Your task to perform on an android device: Search for sushi restaurants on Maps Image 0: 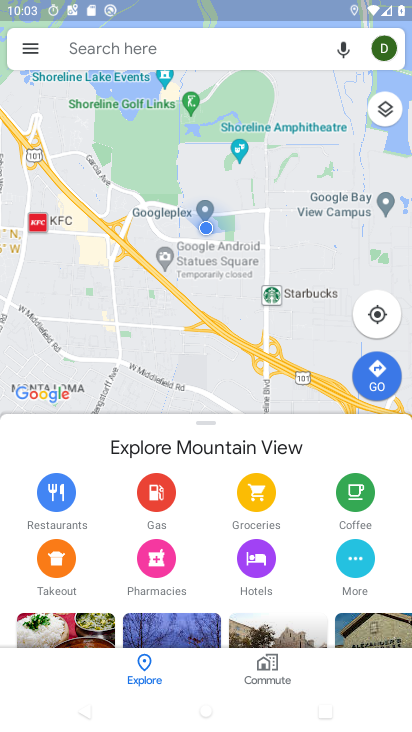
Step 0: press home button
Your task to perform on an android device: Search for sushi restaurants on Maps Image 1: 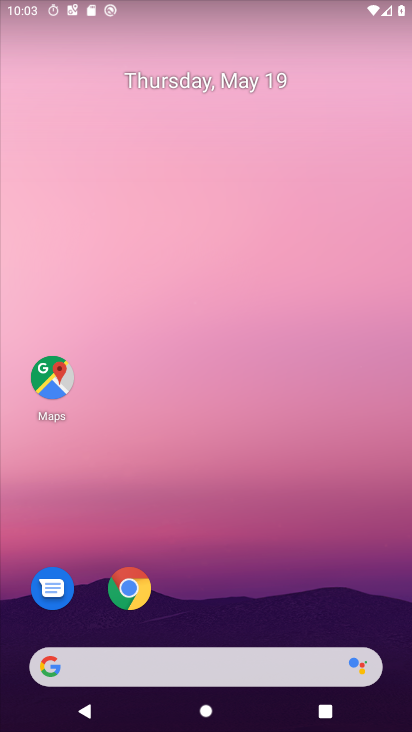
Step 1: drag from (165, 670) to (343, 74)
Your task to perform on an android device: Search for sushi restaurants on Maps Image 2: 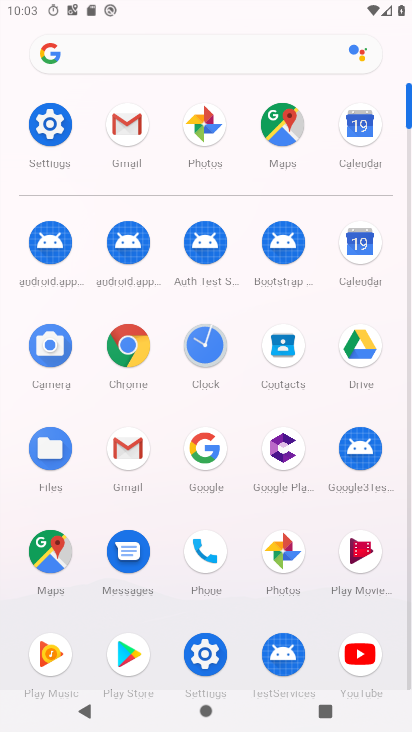
Step 2: click (282, 130)
Your task to perform on an android device: Search for sushi restaurants on Maps Image 3: 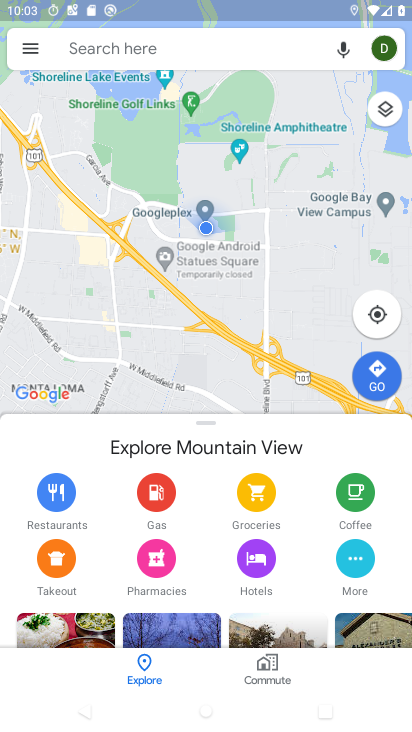
Step 3: click (202, 51)
Your task to perform on an android device: Search for sushi restaurants on Maps Image 4: 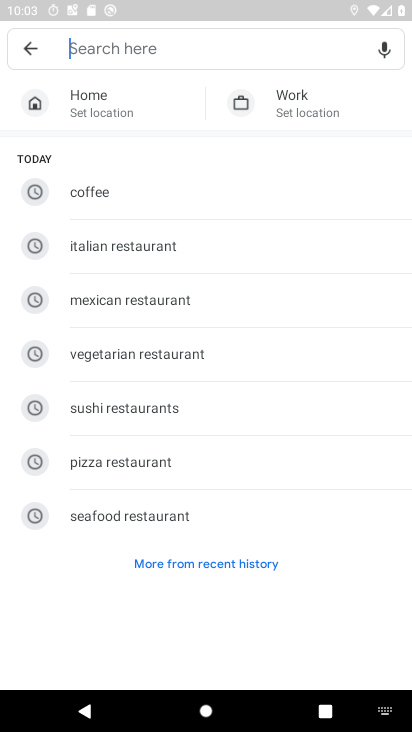
Step 4: click (115, 406)
Your task to perform on an android device: Search for sushi restaurants on Maps Image 5: 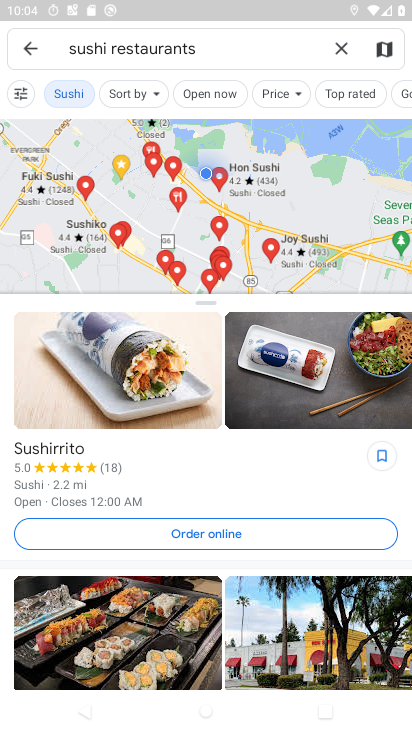
Step 5: task complete